Your task to perform on an android device: Open Google Chrome and click the shortcut for Amazon.com Image 0: 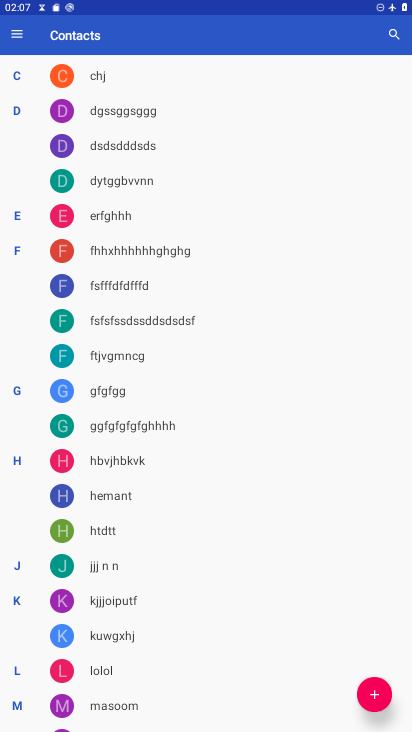
Step 0: press home button
Your task to perform on an android device: Open Google Chrome and click the shortcut for Amazon.com Image 1: 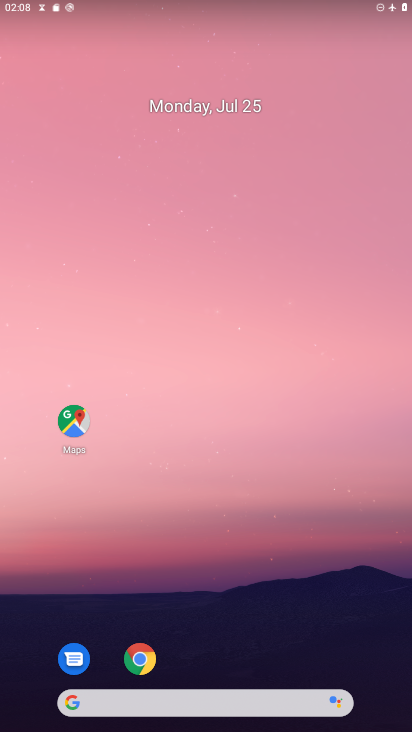
Step 1: click (142, 651)
Your task to perform on an android device: Open Google Chrome and click the shortcut for Amazon.com Image 2: 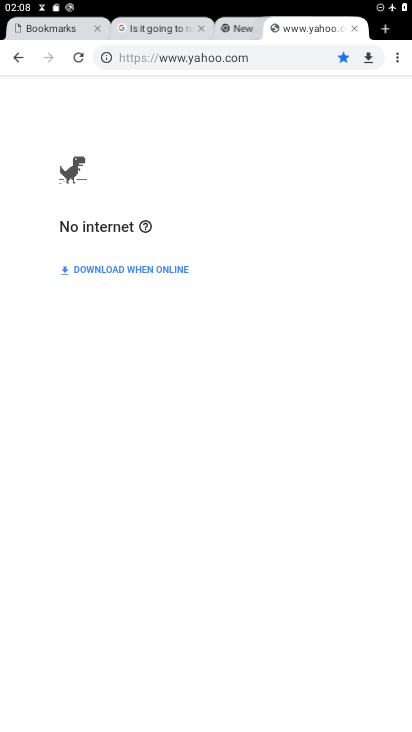
Step 2: click (383, 27)
Your task to perform on an android device: Open Google Chrome and click the shortcut for Amazon.com Image 3: 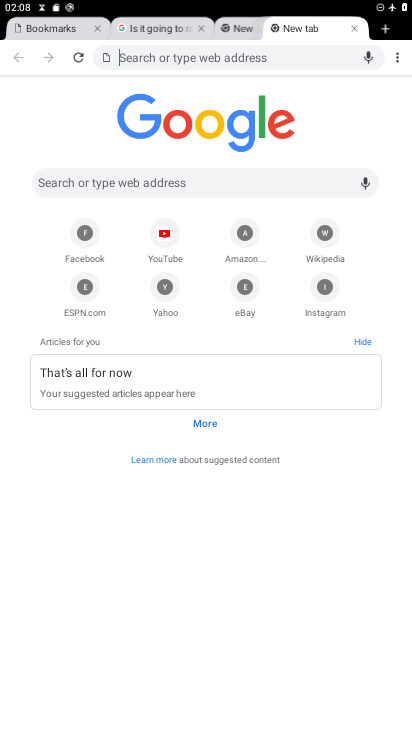
Step 3: click (246, 236)
Your task to perform on an android device: Open Google Chrome and click the shortcut for Amazon.com Image 4: 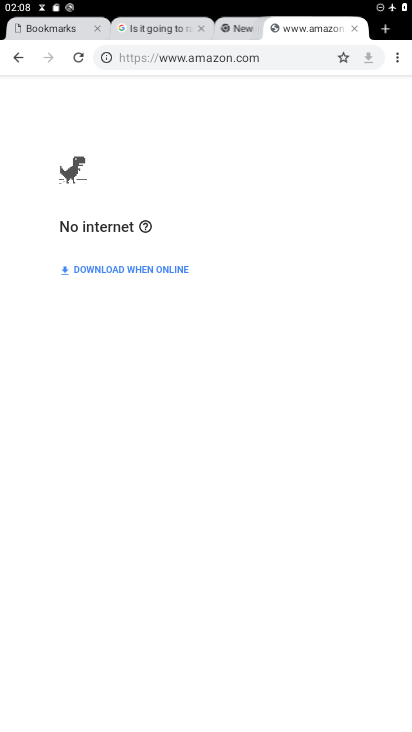
Step 4: task complete